Your task to perform on an android device: open app "Spotify: Music and Podcasts" (install if not already installed) and go to login screen Image 0: 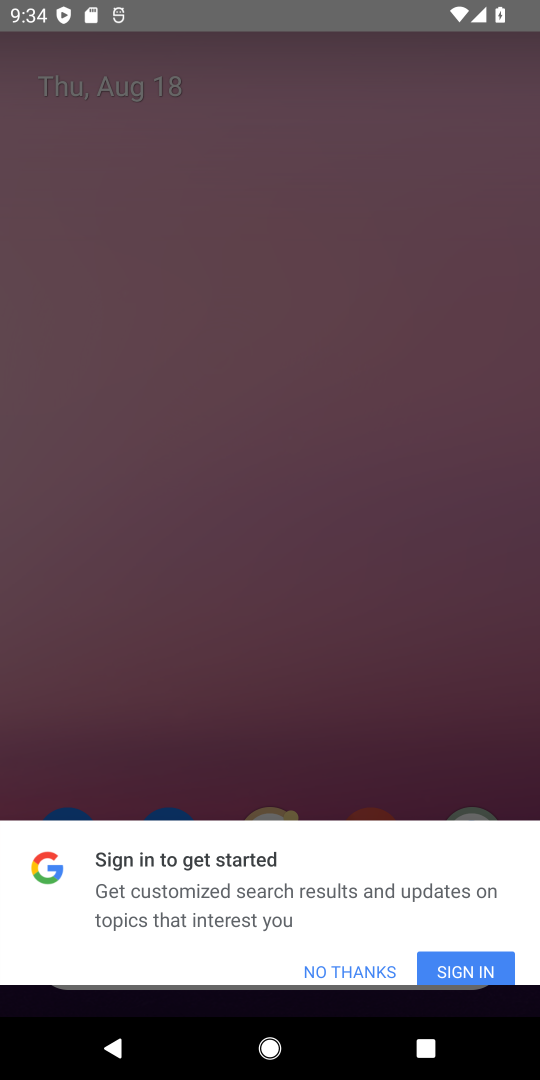
Step 0: click (459, 971)
Your task to perform on an android device: open app "Spotify: Music and Podcasts" (install if not already installed) and go to login screen Image 1: 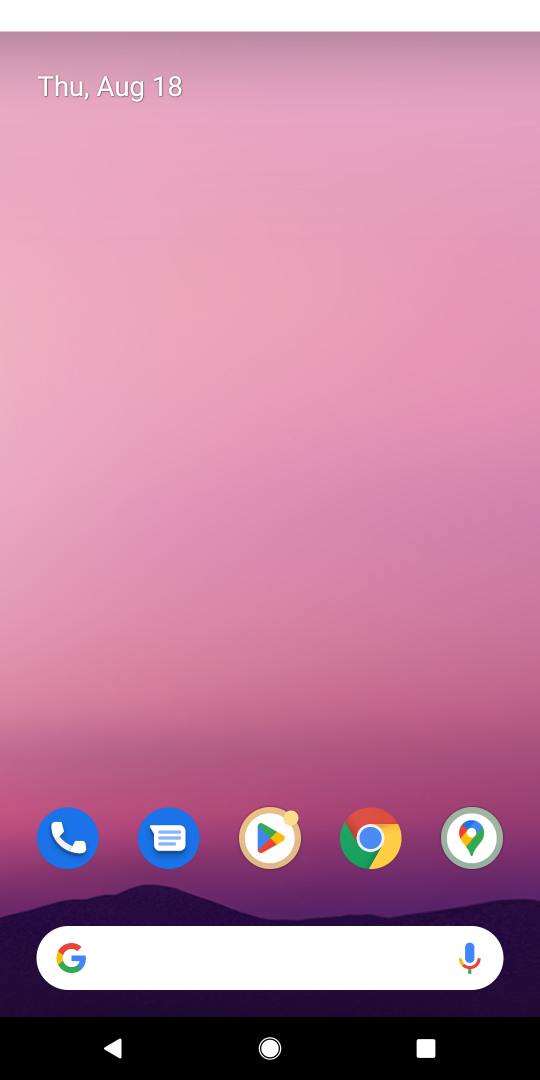
Step 1: task complete